Your task to perform on an android device: Open Google Image 0: 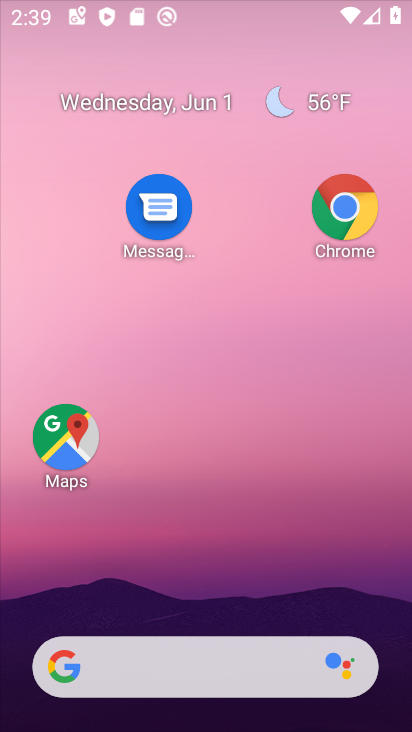
Step 0: drag from (233, 525) to (232, 148)
Your task to perform on an android device: Open Google Image 1: 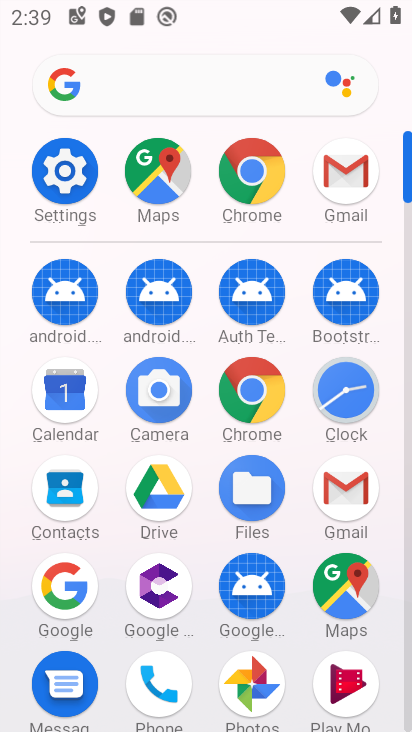
Step 1: drag from (204, 625) to (215, 253)
Your task to perform on an android device: Open Google Image 2: 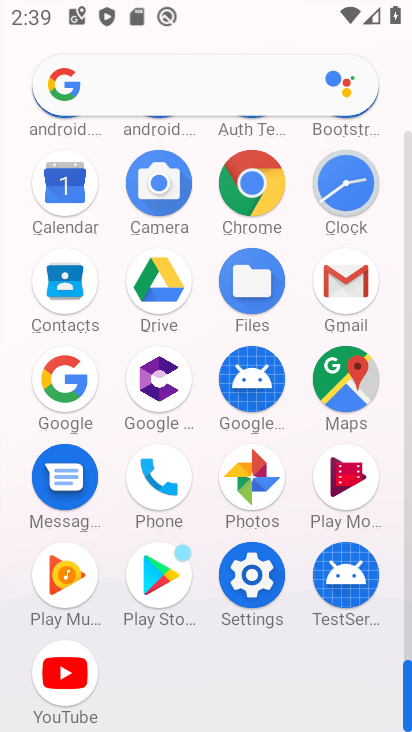
Step 2: drag from (197, 574) to (207, 264)
Your task to perform on an android device: Open Google Image 3: 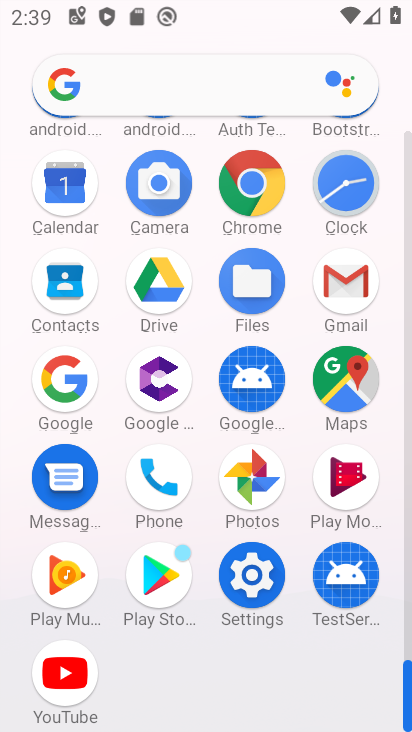
Step 3: drag from (199, 229) to (217, 607)
Your task to perform on an android device: Open Google Image 4: 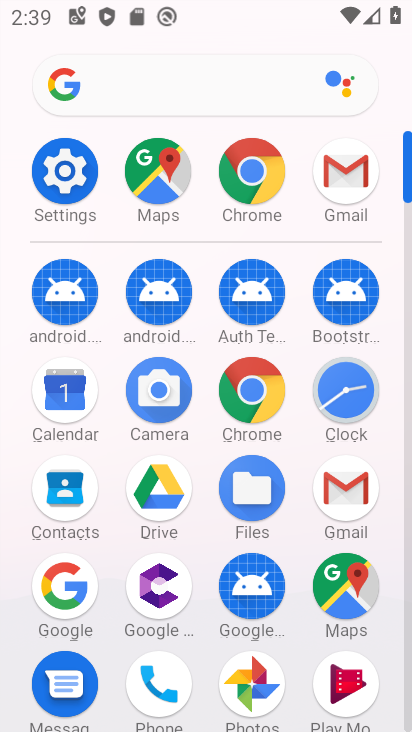
Step 4: click (40, 601)
Your task to perform on an android device: Open Google Image 5: 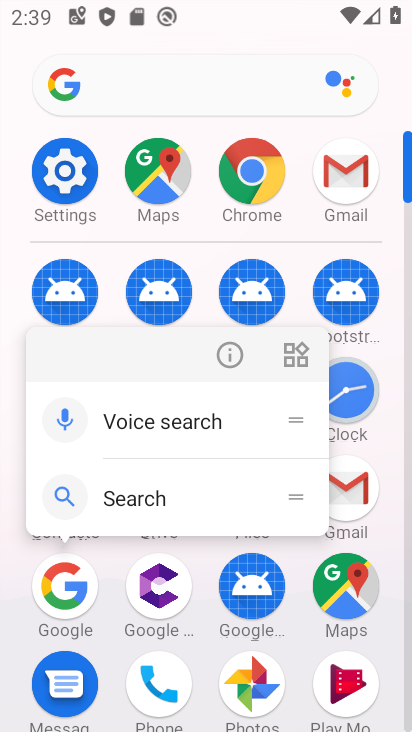
Step 5: click (232, 355)
Your task to perform on an android device: Open Google Image 6: 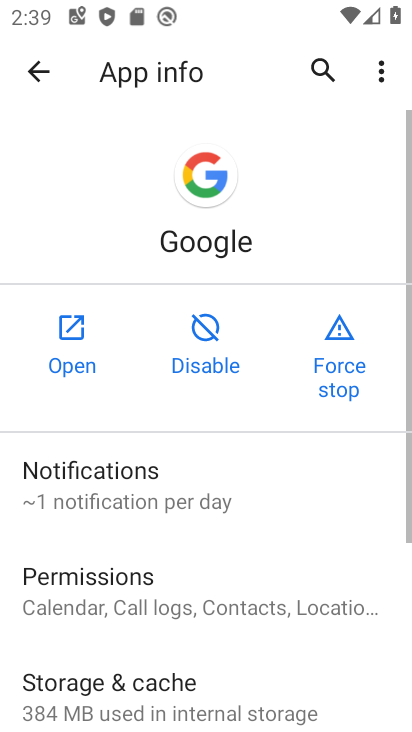
Step 6: click (96, 323)
Your task to perform on an android device: Open Google Image 7: 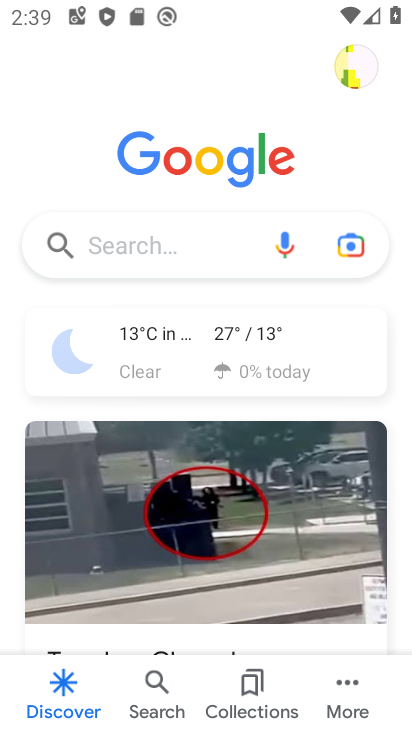
Step 7: task complete